Your task to perform on an android device: Go to Google Image 0: 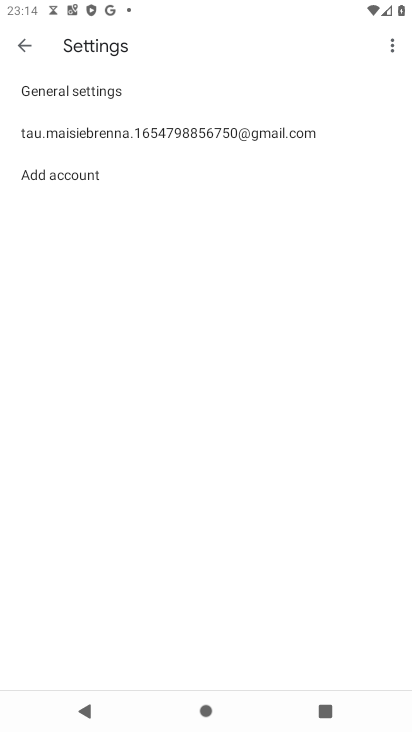
Step 0: press home button
Your task to perform on an android device: Go to Google Image 1: 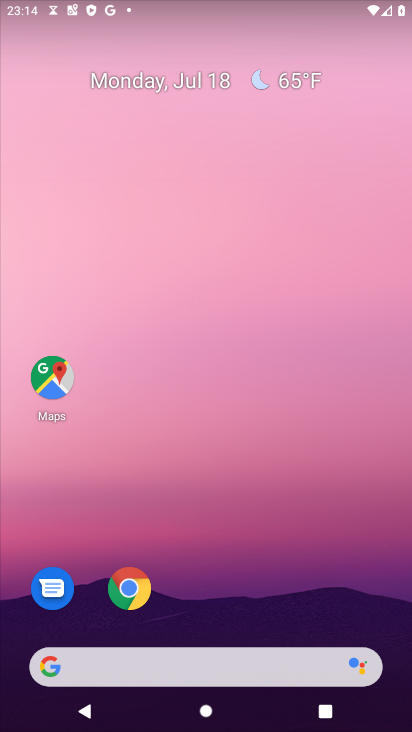
Step 1: drag from (198, 660) to (263, 171)
Your task to perform on an android device: Go to Google Image 2: 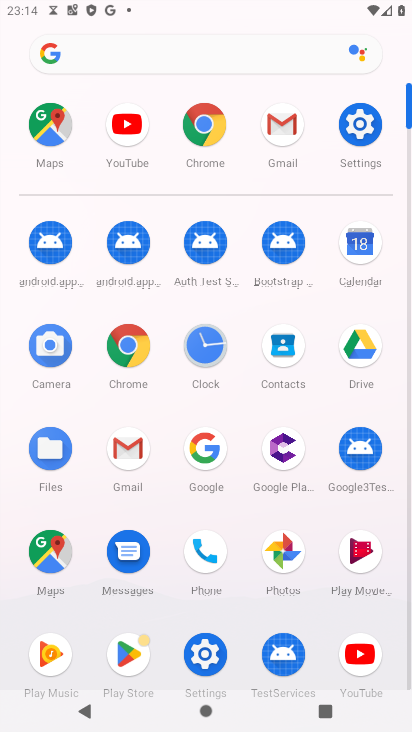
Step 2: click (200, 447)
Your task to perform on an android device: Go to Google Image 3: 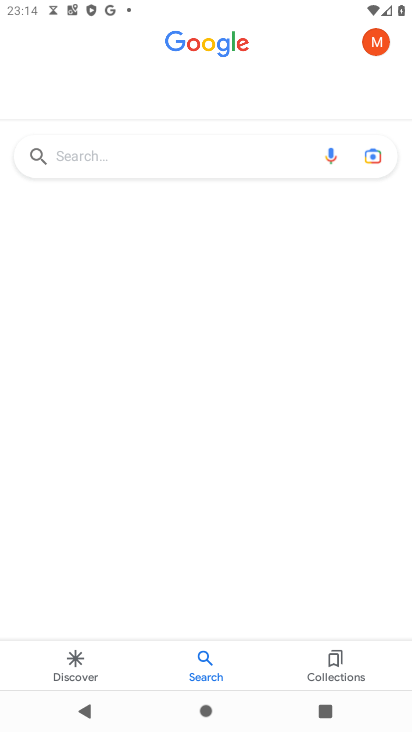
Step 3: task complete